Your task to perform on an android device: open a bookmark in the chrome app Image 0: 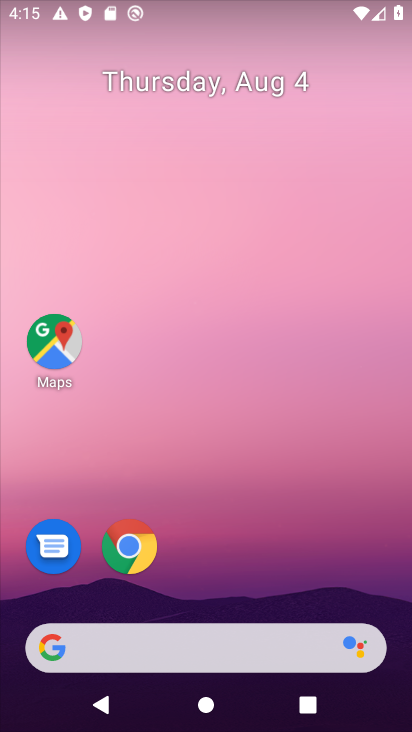
Step 0: click (129, 556)
Your task to perform on an android device: open a bookmark in the chrome app Image 1: 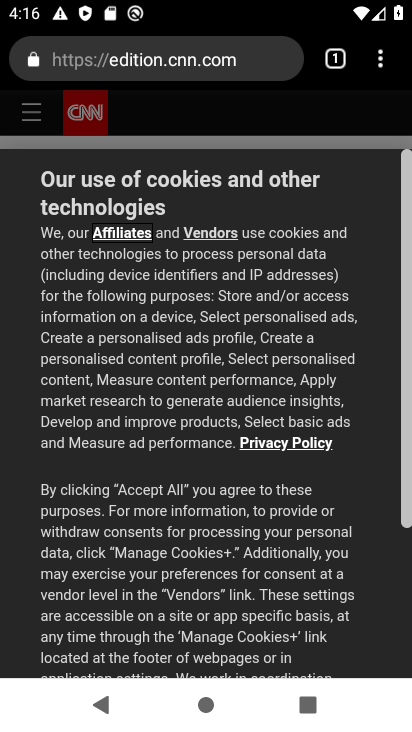
Step 1: press back button
Your task to perform on an android device: open a bookmark in the chrome app Image 2: 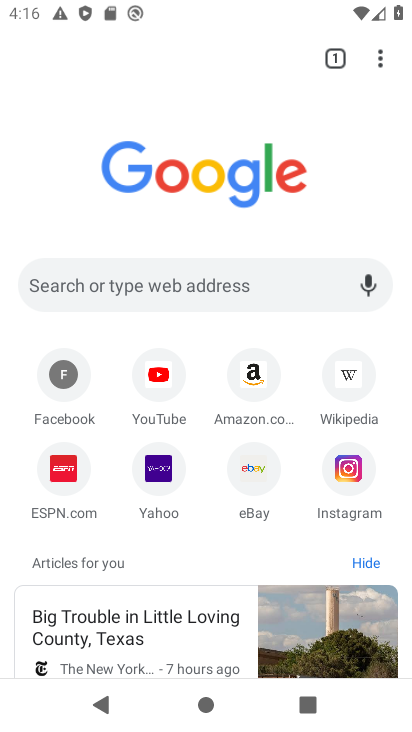
Step 2: click (380, 66)
Your task to perform on an android device: open a bookmark in the chrome app Image 3: 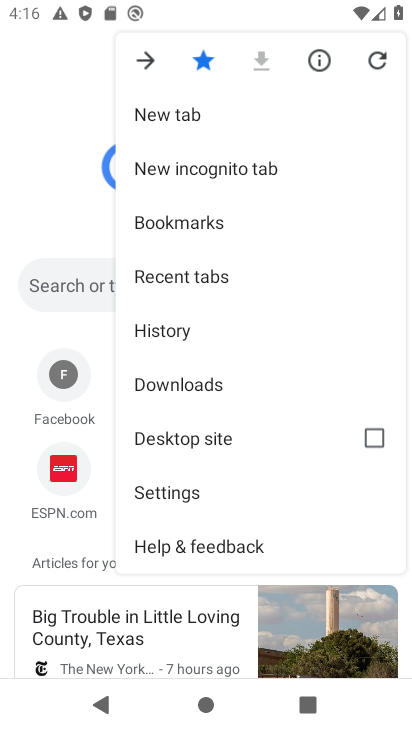
Step 3: click (199, 218)
Your task to perform on an android device: open a bookmark in the chrome app Image 4: 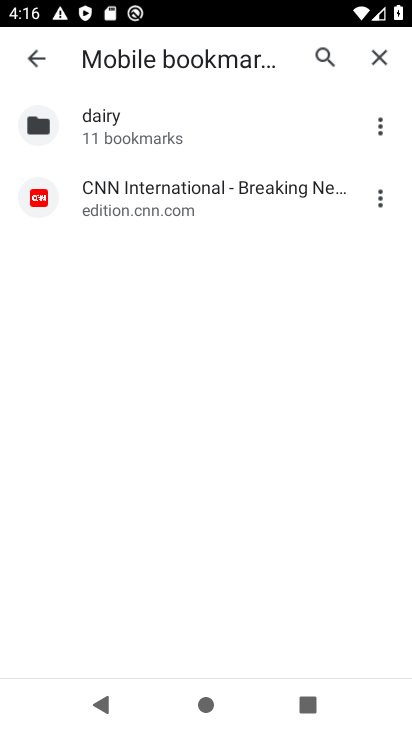
Step 4: click (219, 188)
Your task to perform on an android device: open a bookmark in the chrome app Image 5: 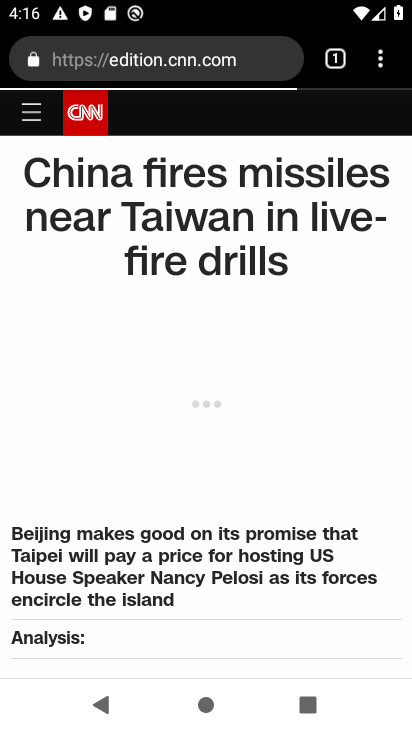
Step 5: task complete